Your task to perform on an android device: Open Google Image 0: 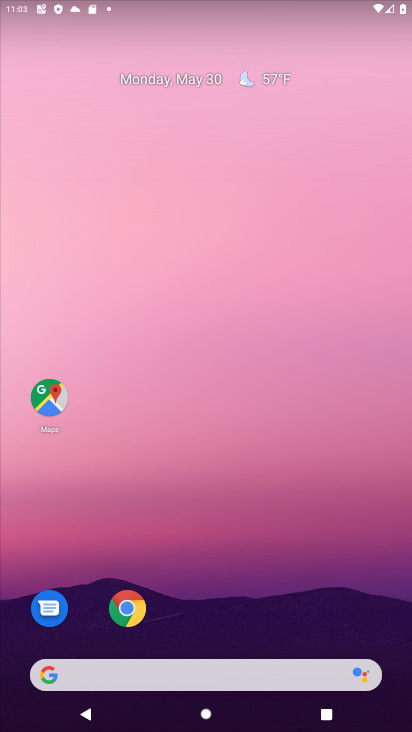
Step 0: drag from (343, 545) to (251, 34)
Your task to perform on an android device: Open Google Image 1: 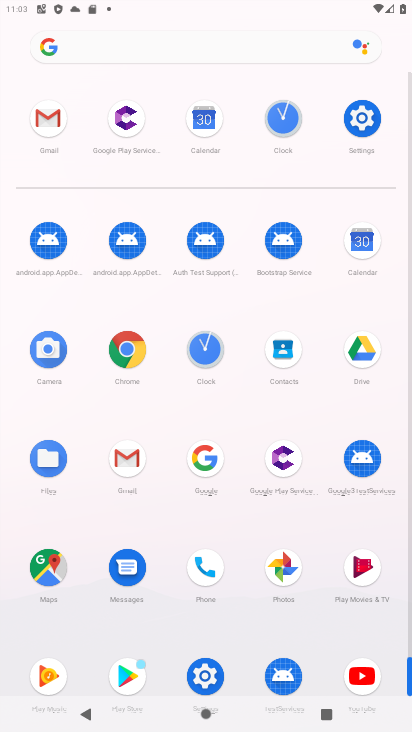
Step 1: click (128, 348)
Your task to perform on an android device: Open Google Image 2: 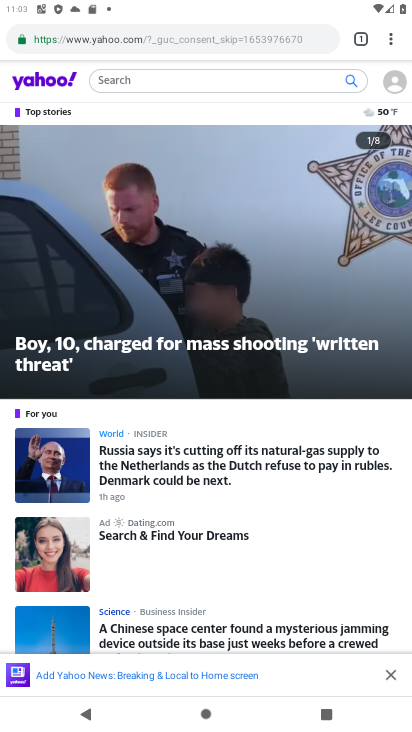
Step 2: click (282, 27)
Your task to perform on an android device: Open Google Image 3: 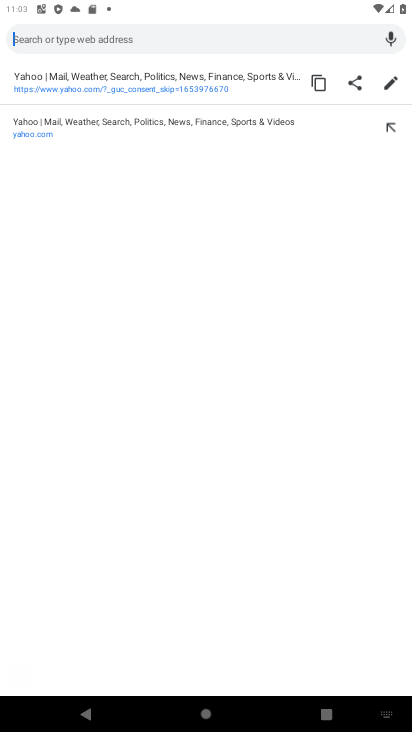
Step 3: type "Google"
Your task to perform on an android device: Open Google Image 4: 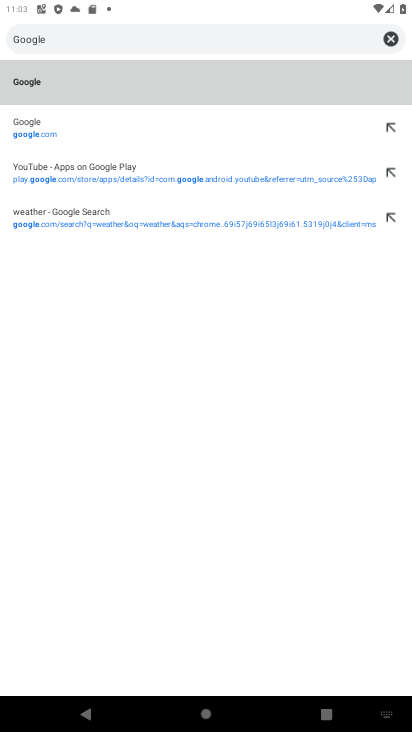
Step 4: click (62, 123)
Your task to perform on an android device: Open Google Image 5: 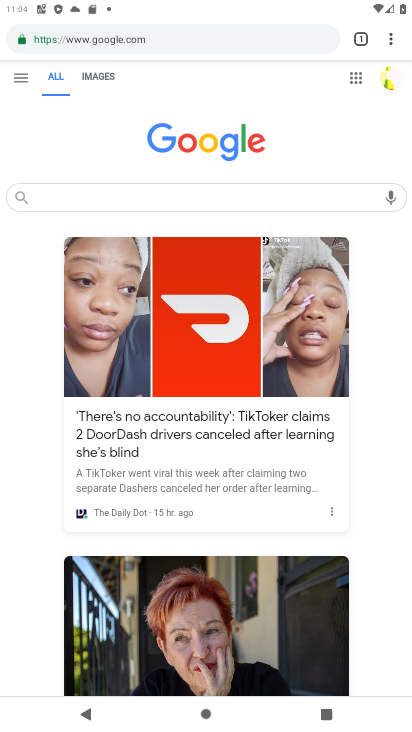
Step 5: task complete